Your task to perform on an android device: Open the stopwatch Image 0: 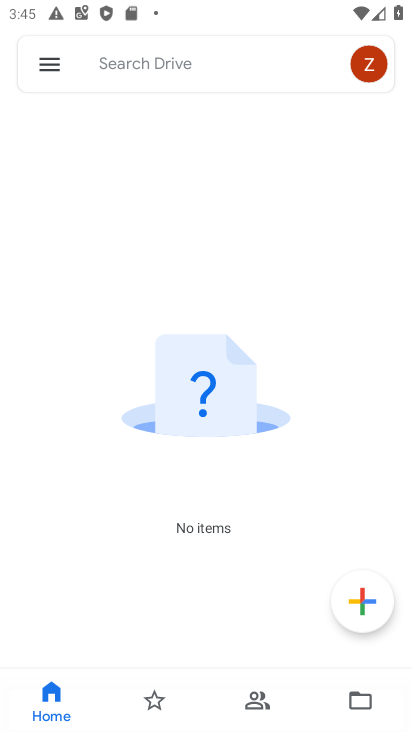
Step 0: press back button
Your task to perform on an android device: Open the stopwatch Image 1: 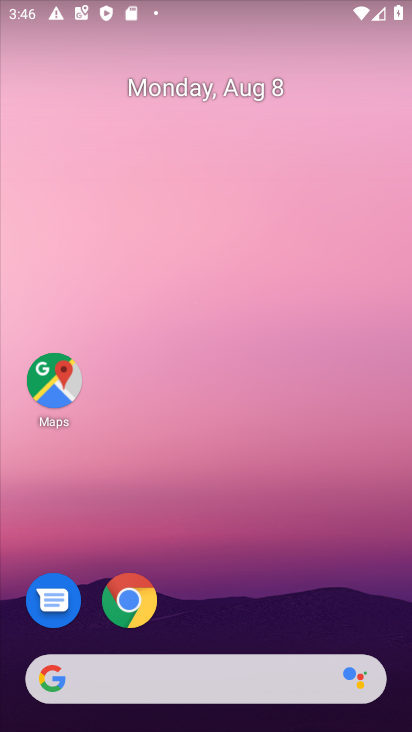
Step 1: drag from (394, 606) to (285, 115)
Your task to perform on an android device: Open the stopwatch Image 2: 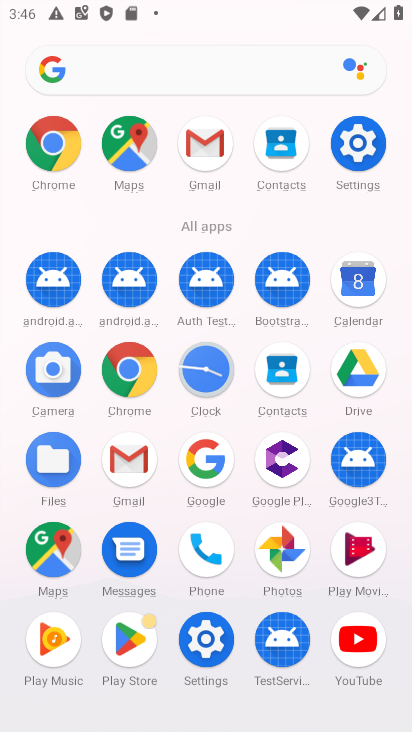
Step 2: click (196, 369)
Your task to perform on an android device: Open the stopwatch Image 3: 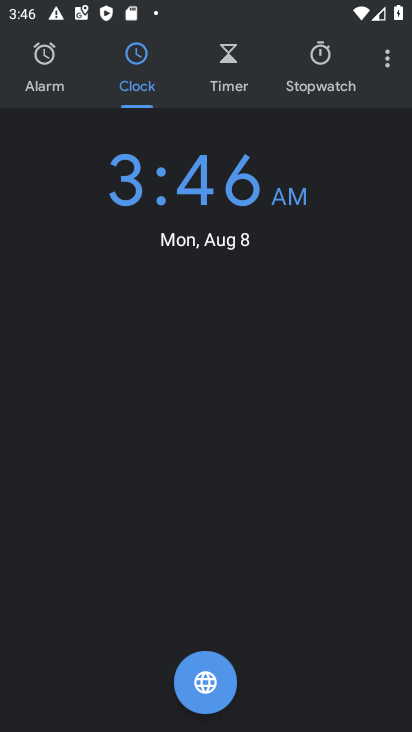
Step 3: click (316, 74)
Your task to perform on an android device: Open the stopwatch Image 4: 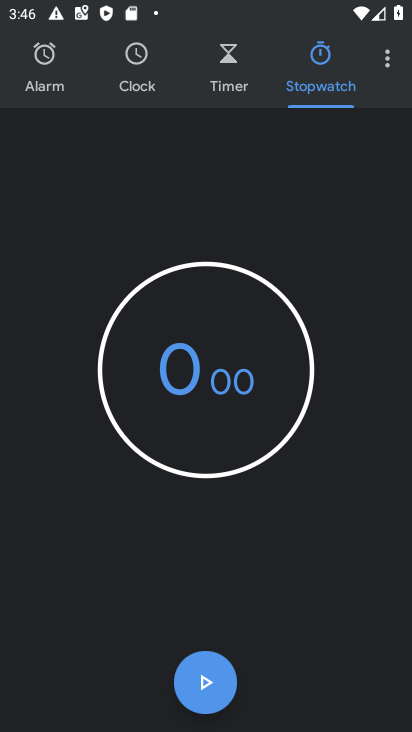
Step 4: task complete